Your task to perform on an android device: turn off improve location accuracy Image 0: 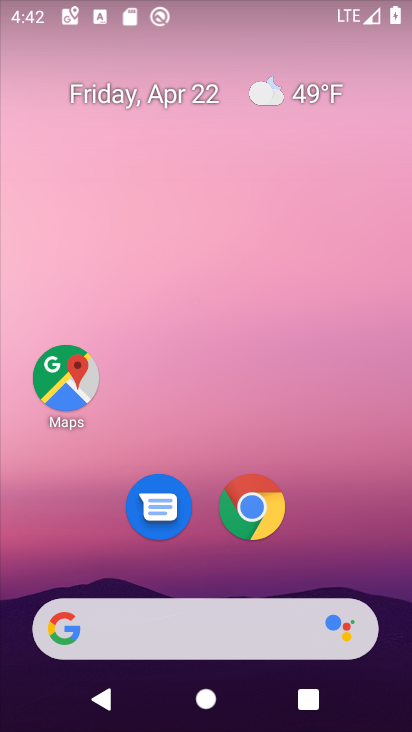
Step 0: drag from (398, 630) to (359, 147)
Your task to perform on an android device: turn off improve location accuracy Image 1: 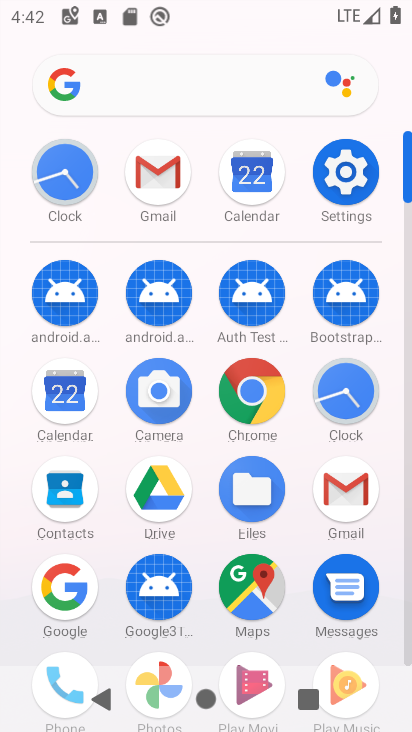
Step 1: click (406, 658)
Your task to perform on an android device: turn off improve location accuracy Image 2: 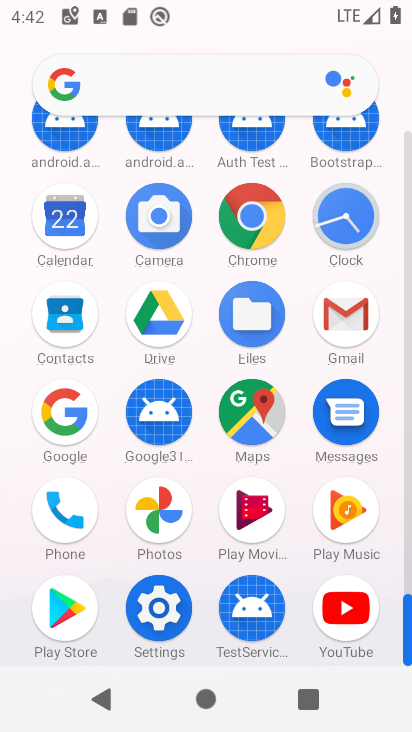
Step 2: click (159, 606)
Your task to perform on an android device: turn off improve location accuracy Image 3: 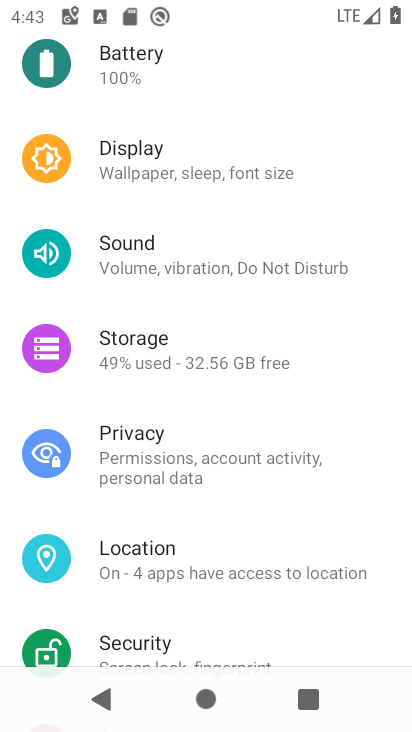
Step 3: drag from (347, 513) to (376, 203)
Your task to perform on an android device: turn off improve location accuracy Image 4: 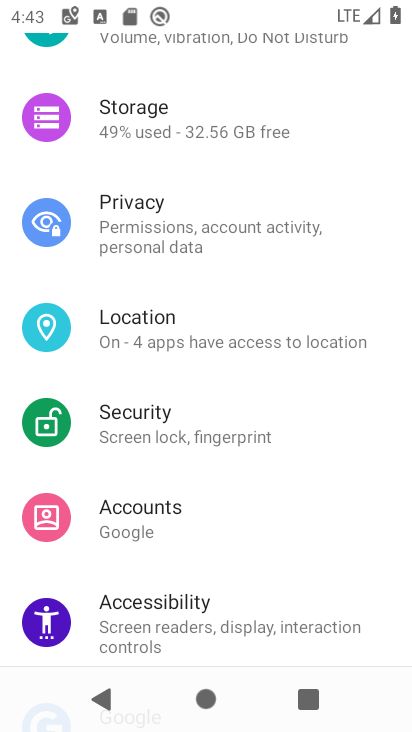
Step 4: click (142, 321)
Your task to perform on an android device: turn off improve location accuracy Image 5: 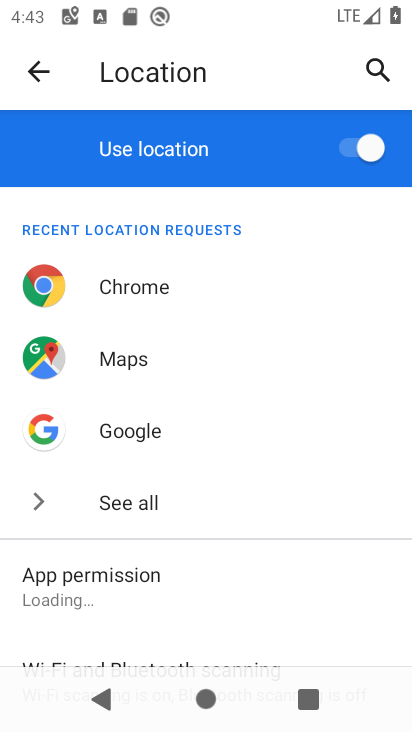
Step 5: drag from (224, 570) to (308, 226)
Your task to perform on an android device: turn off improve location accuracy Image 6: 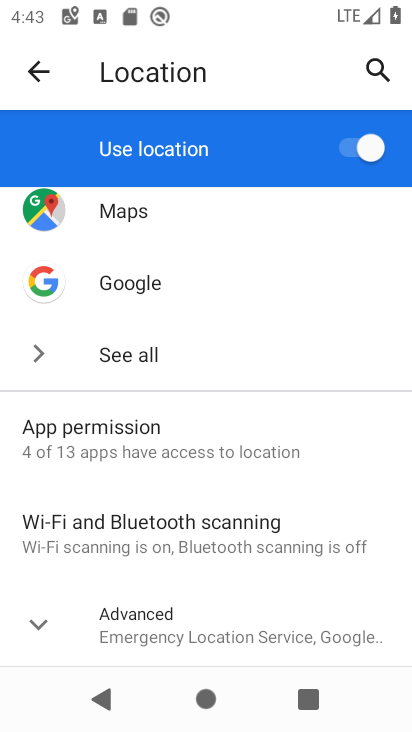
Step 6: click (28, 620)
Your task to perform on an android device: turn off improve location accuracy Image 7: 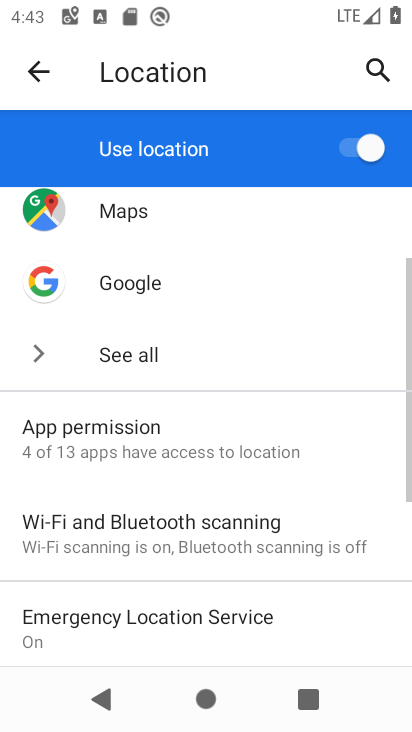
Step 7: drag from (281, 628) to (342, 239)
Your task to perform on an android device: turn off improve location accuracy Image 8: 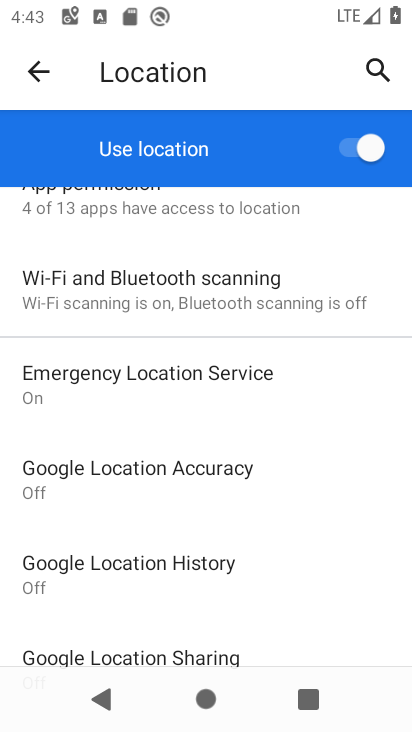
Step 8: click (48, 469)
Your task to perform on an android device: turn off improve location accuracy Image 9: 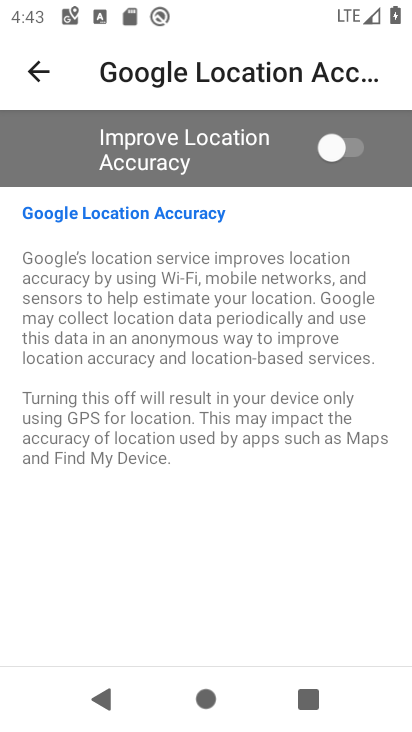
Step 9: task complete